Your task to perform on an android device: Open network settings Image 0: 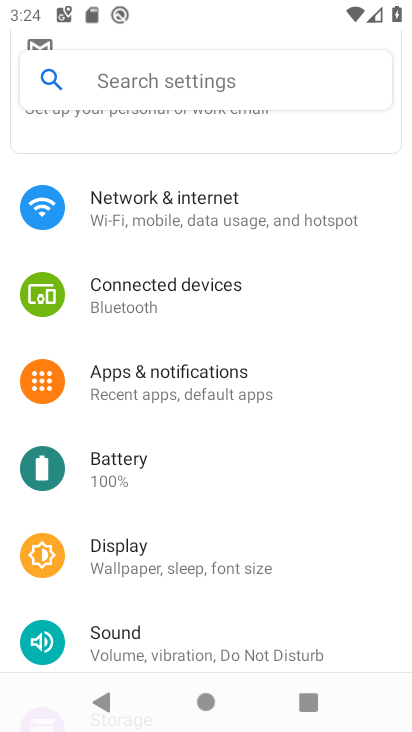
Step 0: click (169, 203)
Your task to perform on an android device: Open network settings Image 1: 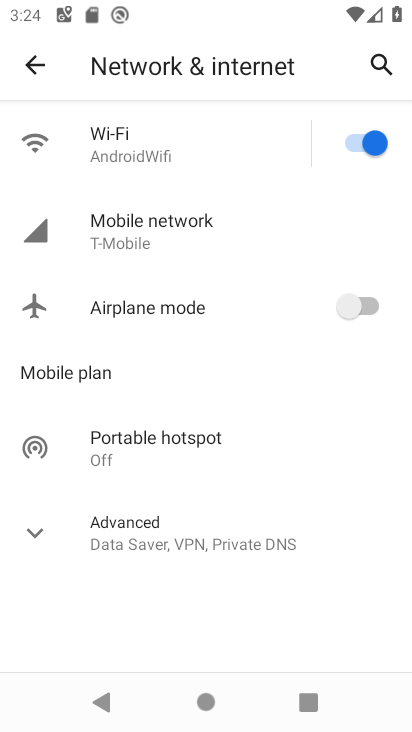
Step 1: click (135, 225)
Your task to perform on an android device: Open network settings Image 2: 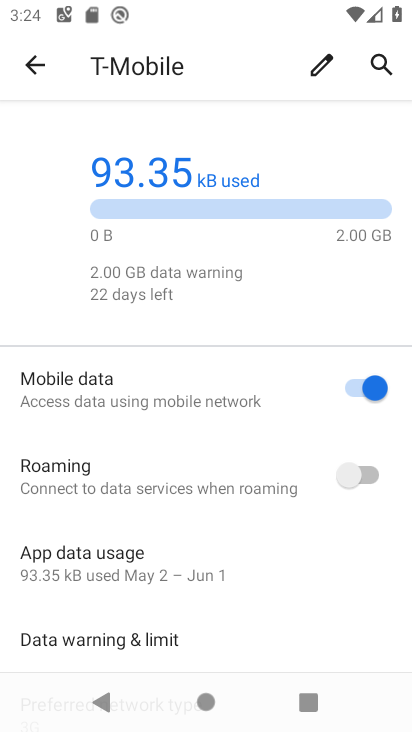
Step 2: task complete